Your task to perform on an android device: change the upload size in google photos Image 0: 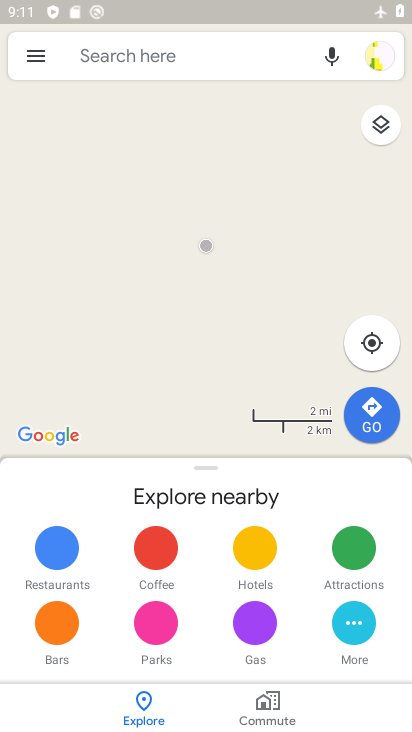
Step 0: press home button
Your task to perform on an android device: change the upload size in google photos Image 1: 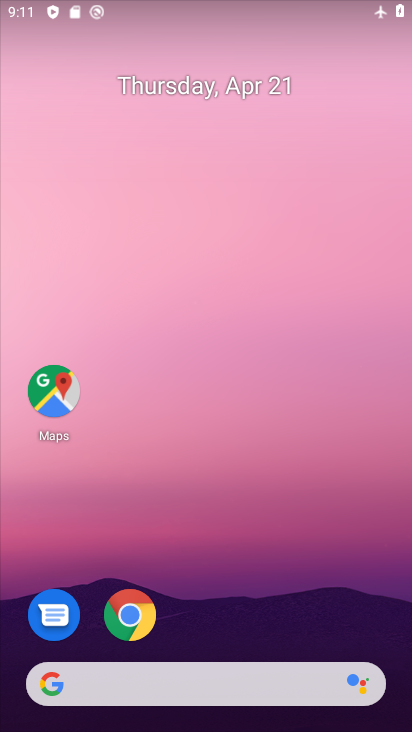
Step 1: drag from (213, 725) to (211, 219)
Your task to perform on an android device: change the upload size in google photos Image 2: 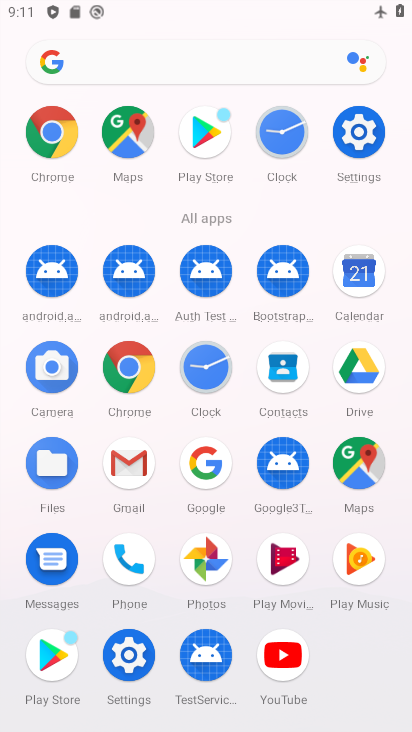
Step 2: click (203, 554)
Your task to perform on an android device: change the upload size in google photos Image 3: 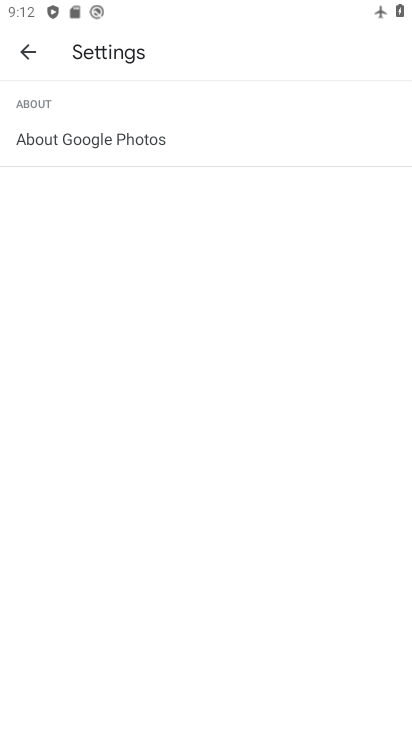
Step 3: click (28, 52)
Your task to perform on an android device: change the upload size in google photos Image 4: 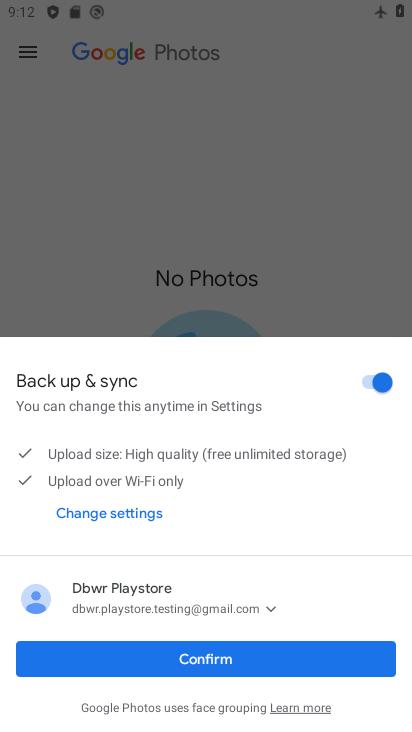
Step 4: click (214, 657)
Your task to perform on an android device: change the upload size in google photos Image 5: 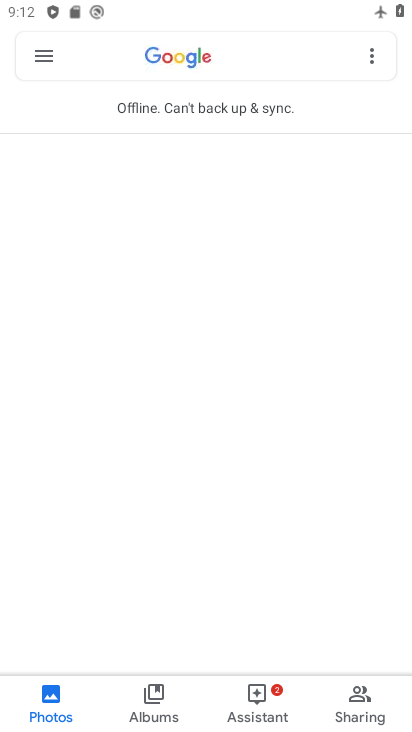
Step 5: click (47, 59)
Your task to perform on an android device: change the upload size in google photos Image 6: 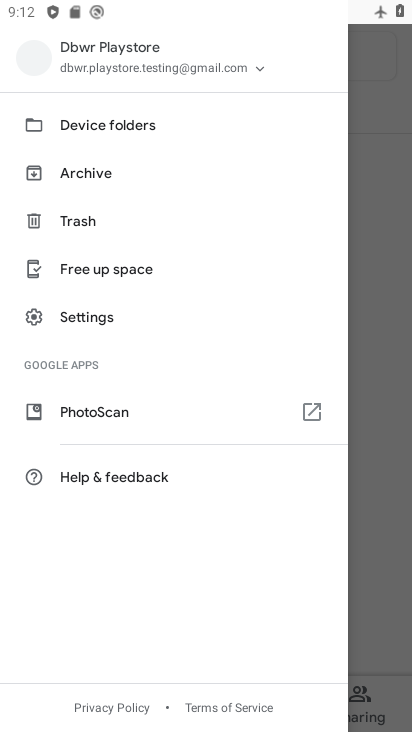
Step 6: click (83, 316)
Your task to perform on an android device: change the upload size in google photos Image 7: 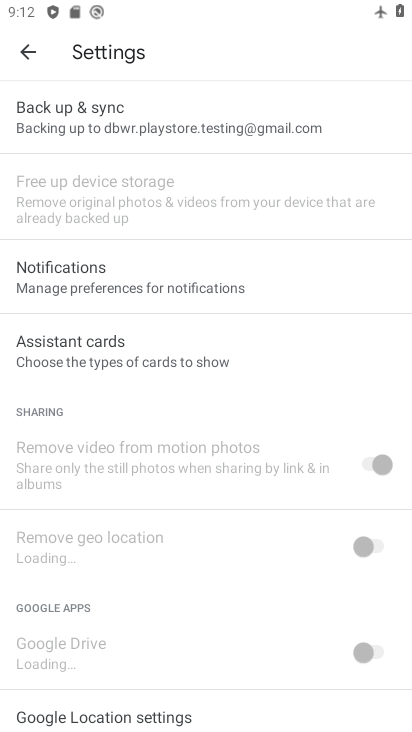
Step 7: click (109, 113)
Your task to perform on an android device: change the upload size in google photos Image 8: 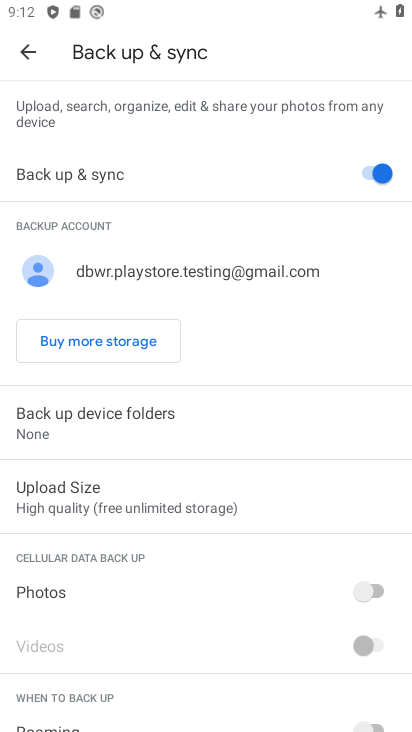
Step 8: click (62, 495)
Your task to perform on an android device: change the upload size in google photos Image 9: 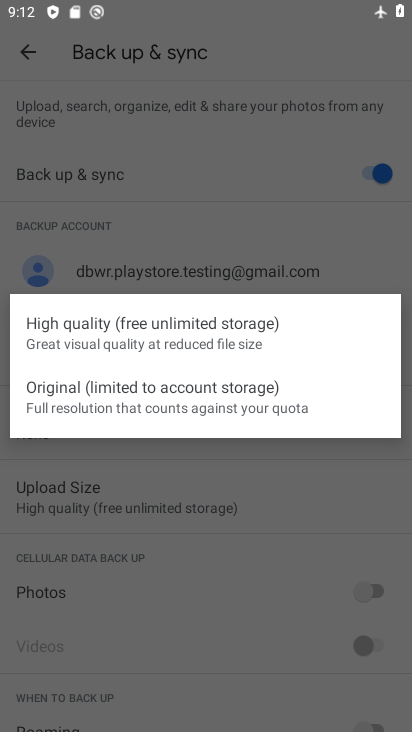
Step 9: click (115, 397)
Your task to perform on an android device: change the upload size in google photos Image 10: 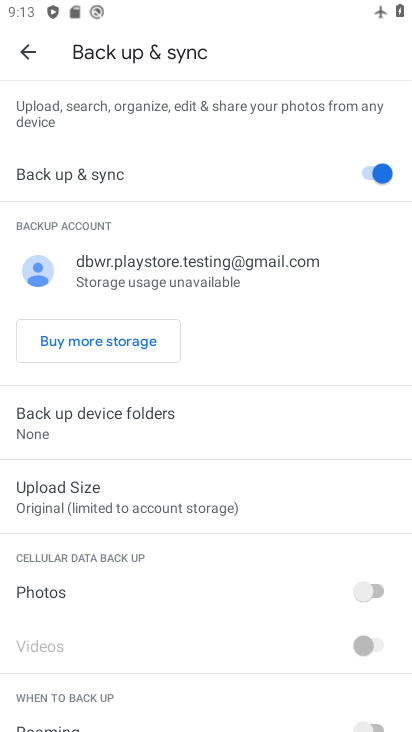
Step 10: task complete